Your task to perform on an android device: Open location settings Image 0: 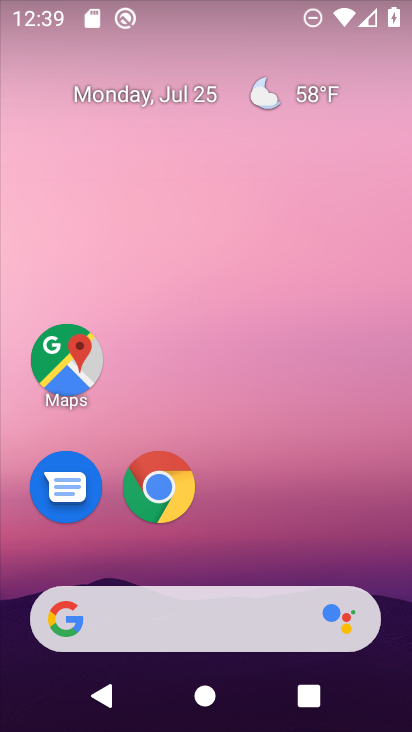
Step 0: drag from (215, 440) to (279, 23)
Your task to perform on an android device: Open location settings Image 1: 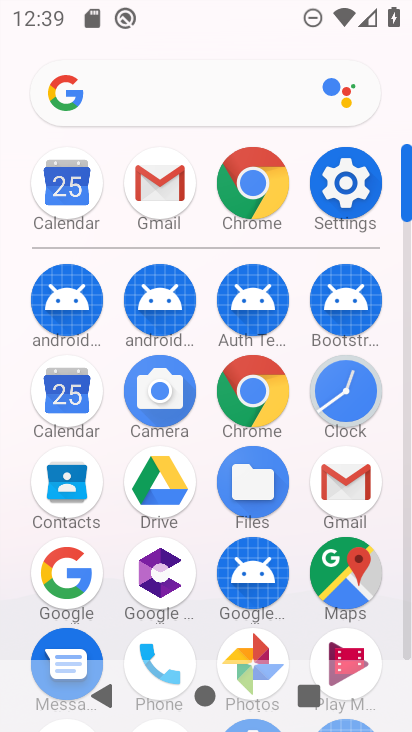
Step 1: click (349, 183)
Your task to perform on an android device: Open location settings Image 2: 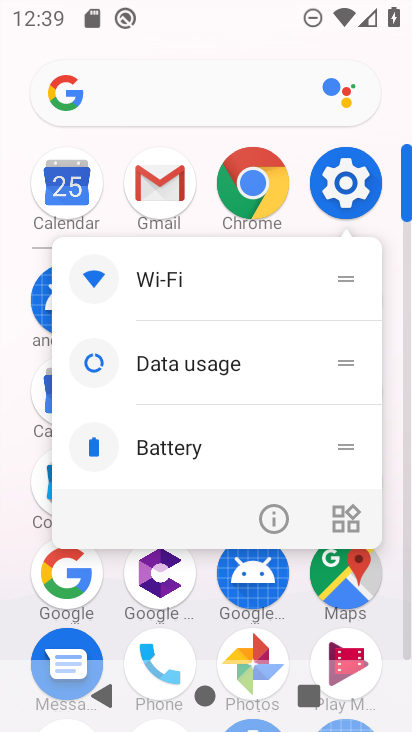
Step 2: click (350, 173)
Your task to perform on an android device: Open location settings Image 3: 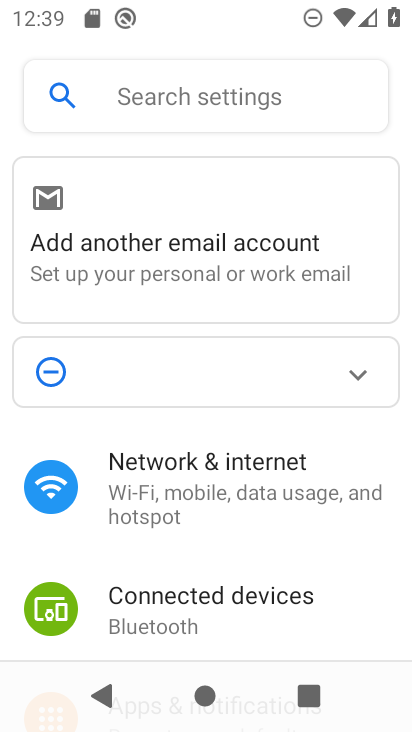
Step 3: drag from (191, 572) to (341, 31)
Your task to perform on an android device: Open location settings Image 4: 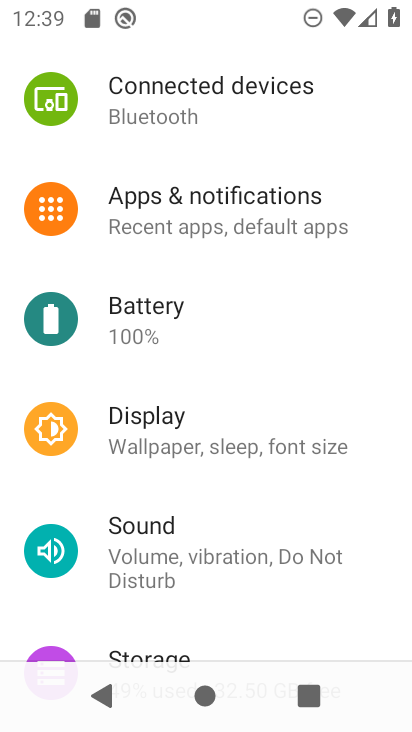
Step 4: drag from (190, 582) to (261, 142)
Your task to perform on an android device: Open location settings Image 5: 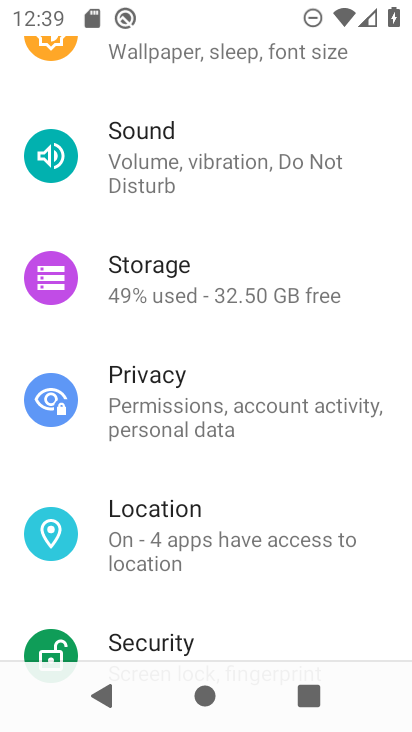
Step 5: click (145, 531)
Your task to perform on an android device: Open location settings Image 6: 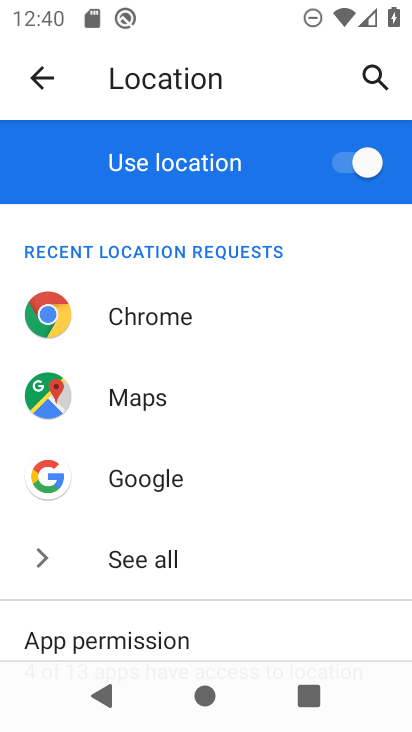
Step 6: task complete